Your task to perform on an android device: Open display settings Image 0: 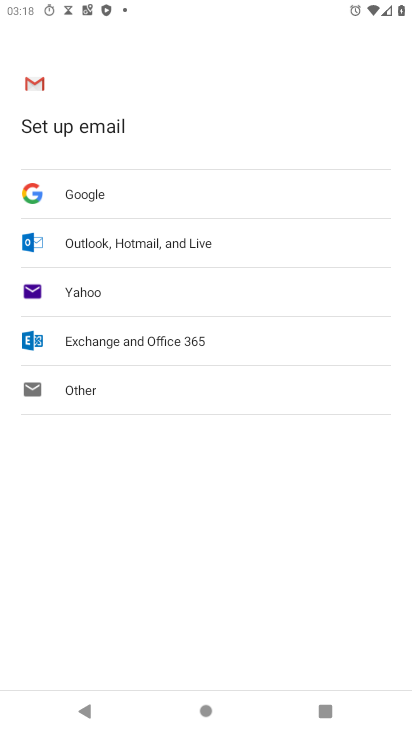
Step 0: press home button
Your task to perform on an android device: Open display settings Image 1: 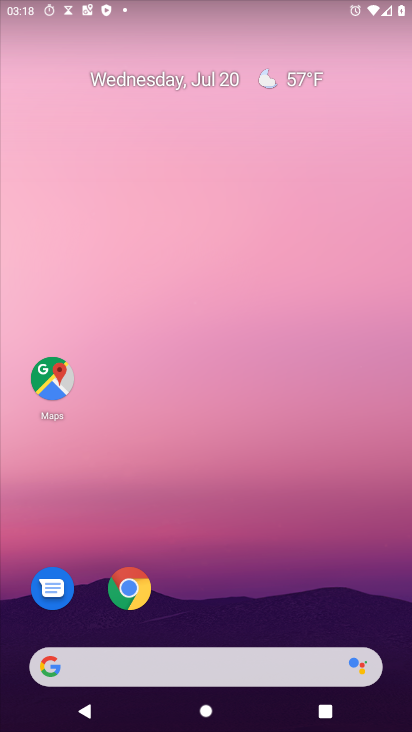
Step 1: drag from (286, 659) to (277, 22)
Your task to perform on an android device: Open display settings Image 2: 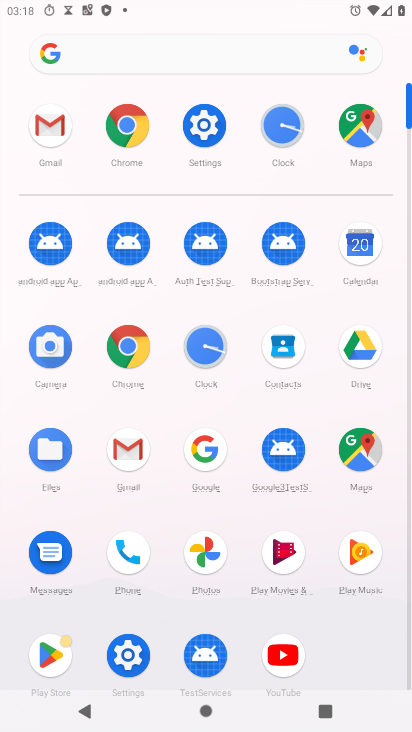
Step 2: click (202, 136)
Your task to perform on an android device: Open display settings Image 3: 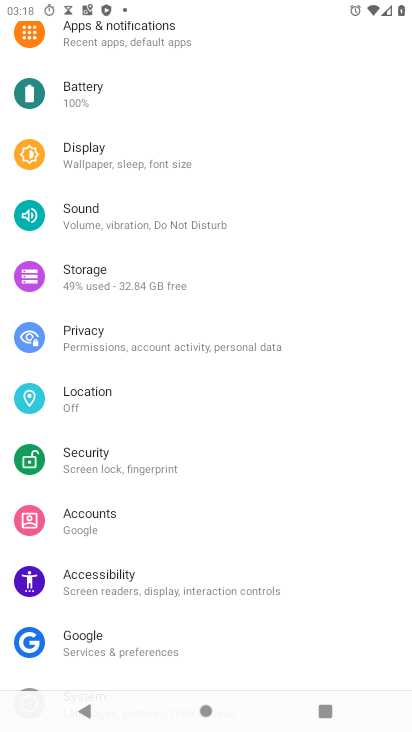
Step 3: click (94, 163)
Your task to perform on an android device: Open display settings Image 4: 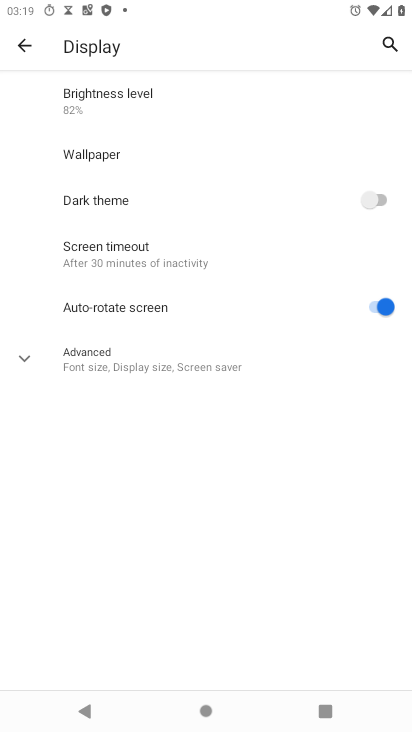
Step 4: task complete